Your task to perform on an android device: Go to Yahoo.com Image 0: 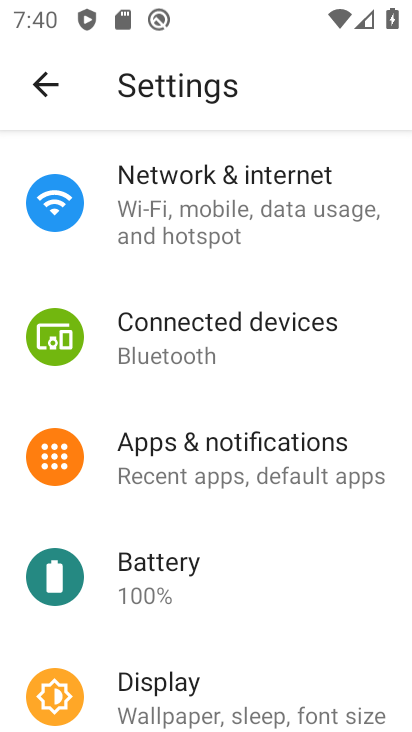
Step 0: press home button
Your task to perform on an android device: Go to Yahoo.com Image 1: 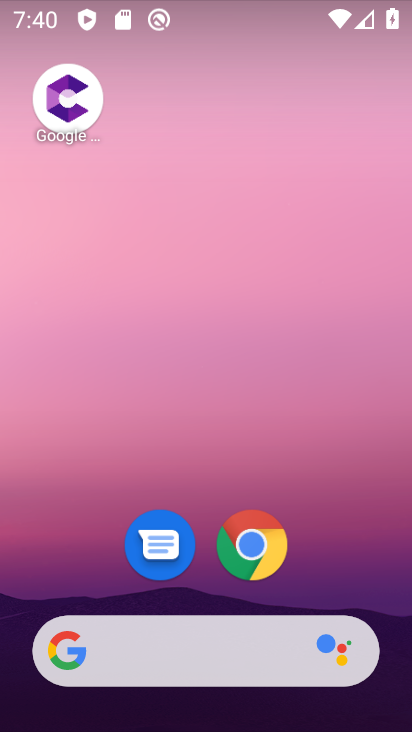
Step 1: drag from (348, 557) to (358, 130)
Your task to perform on an android device: Go to Yahoo.com Image 2: 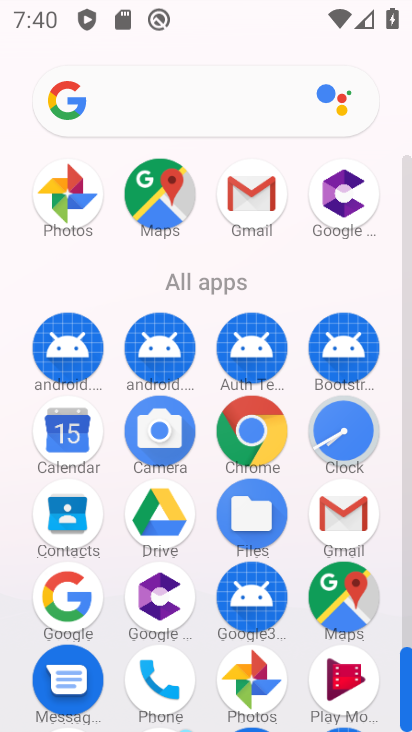
Step 2: click (251, 426)
Your task to perform on an android device: Go to Yahoo.com Image 3: 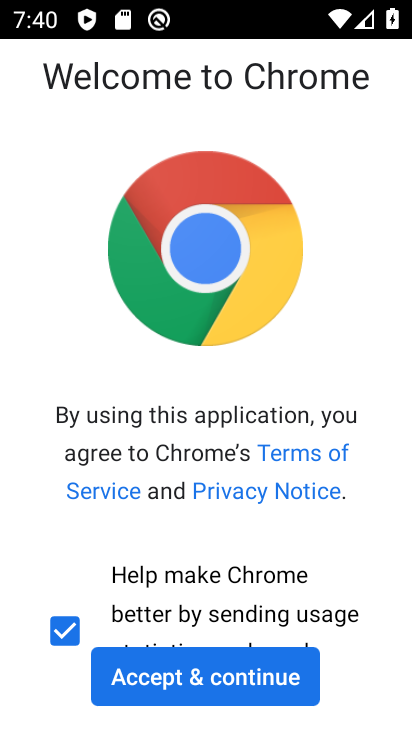
Step 3: click (257, 686)
Your task to perform on an android device: Go to Yahoo.com Image 4: 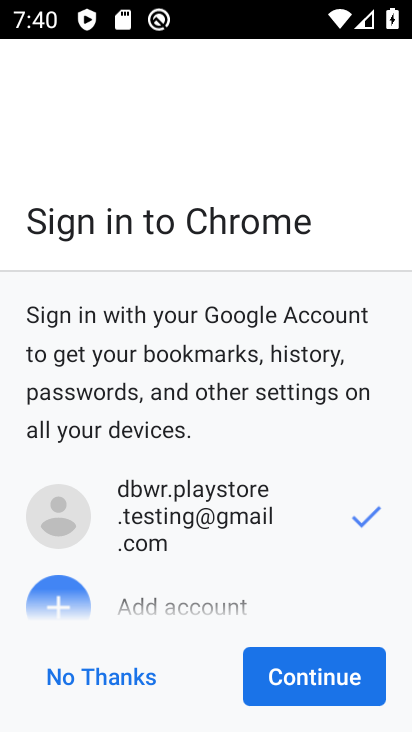
Step 4: click (336, 675)
Your task to perform on an android device: Go to Yahoo.com Image 5: 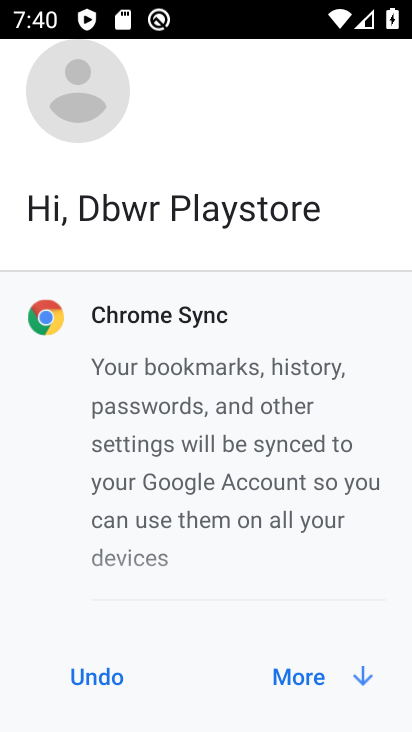
Step 5: click (283, 694)
Your task to perform on an android device: Go to Yahoo.com Image 6: 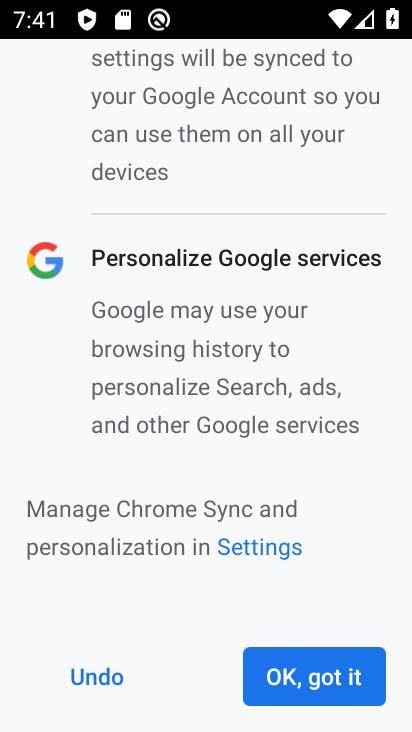
Step 6: click (339, 679)
Your task to perform on an android device: Go to Yahoo.com Image 7: 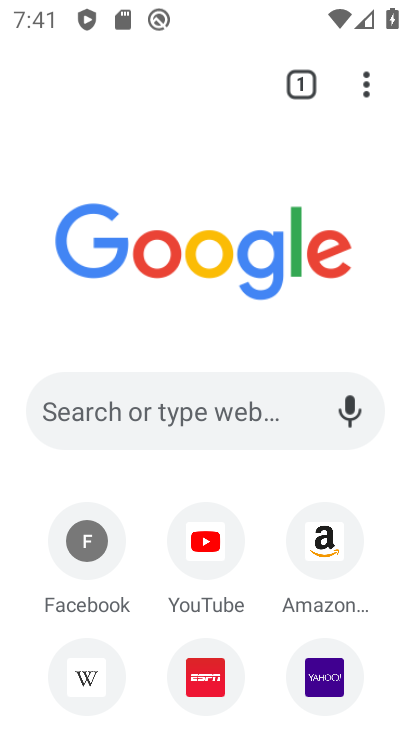
Step 7: click (339, 689)
Your task to perform on an android device: Go to Yahoo.com Image 8: 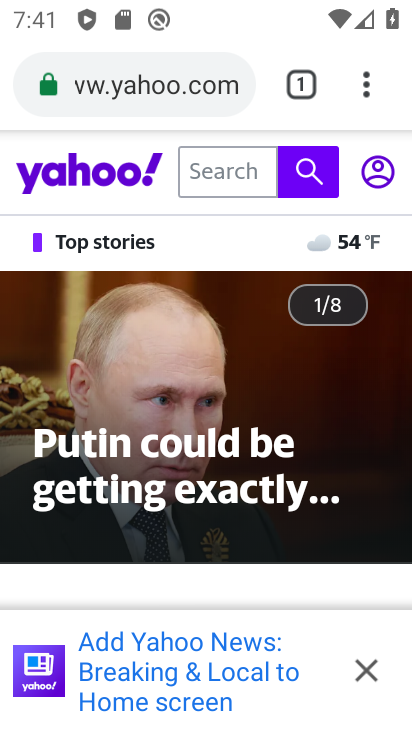
Step 8: task complete